Your task to perform on an android device: change your default location settings in chrome Image 0: 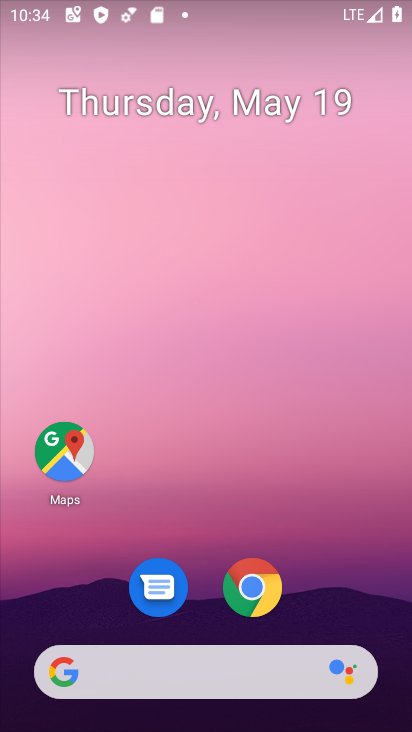
Step 0: click (255, 586)
Your task to perform on an android device: change your default location settings in chrome Image 1: 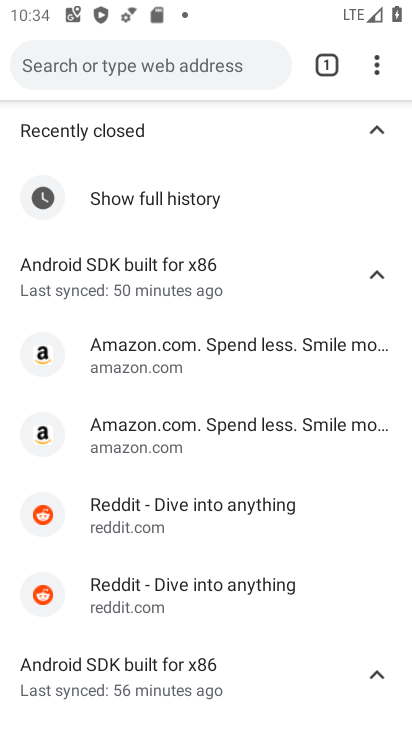
Step 1: click (372, 64)
Your task to perform on an android device: change your default location settings in chrome Image 2: 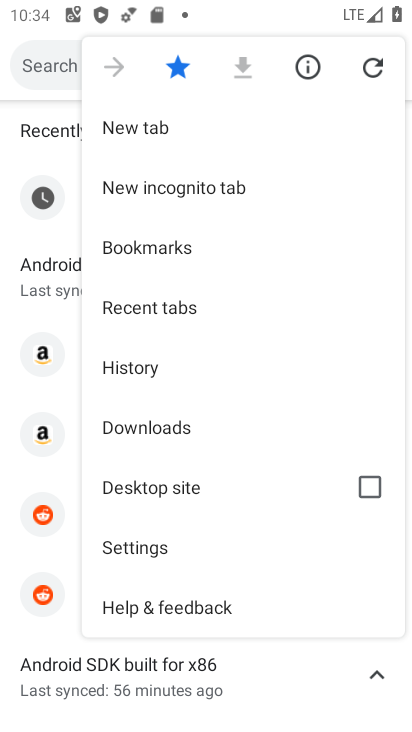
Step 2: click (124, 542)
Your task to perform on an android device: change your default location settings in chrome Image 3: 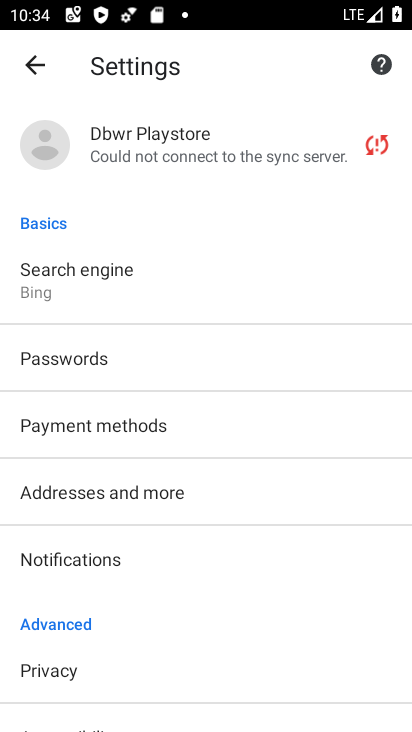
Step 3: drag from (119, 673) to (167, 246)
Your task to perform on an android device: change your default location settings in chrome Image 4: 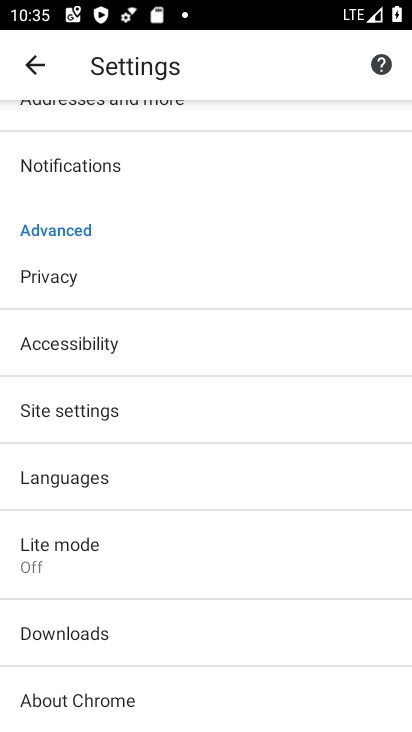
Step 4: drag from (155, 238) to (133, 556)
Your task to perform on an android device: change your default location settings in chrome Image 5: 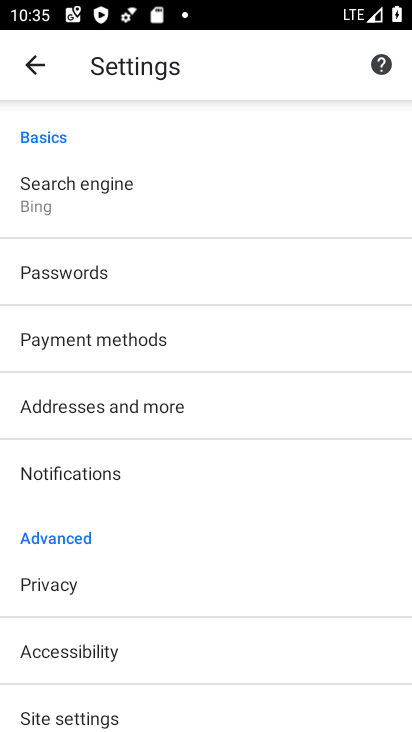
Step 5: drag from (200, 326) to (111, 673)
Your task to perform on an android device: change your default location settings in chrome Image 6: 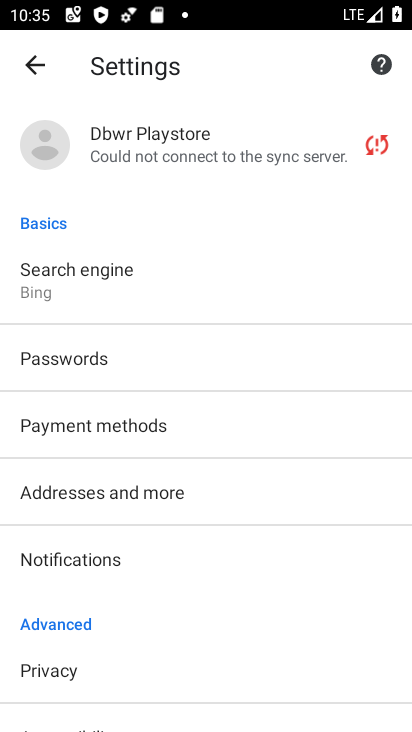
Step 6: click (117, 268)
Your task to perform on an android device: change your default location settings in chrome Image 7: 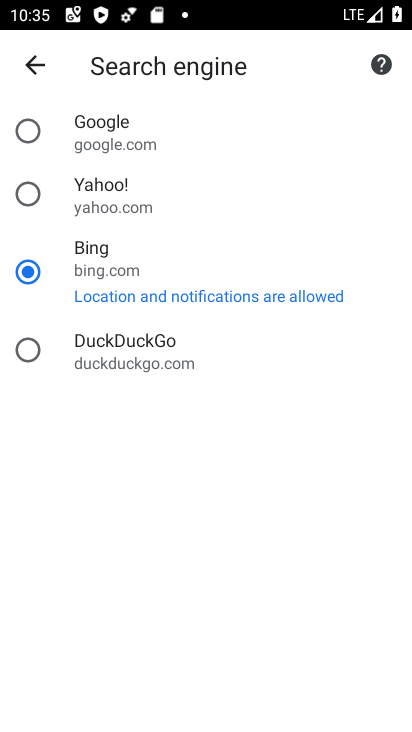
Step 7: click (24, 67)
Your task to perform on an android device: change your default location settings in chrome Image 8: 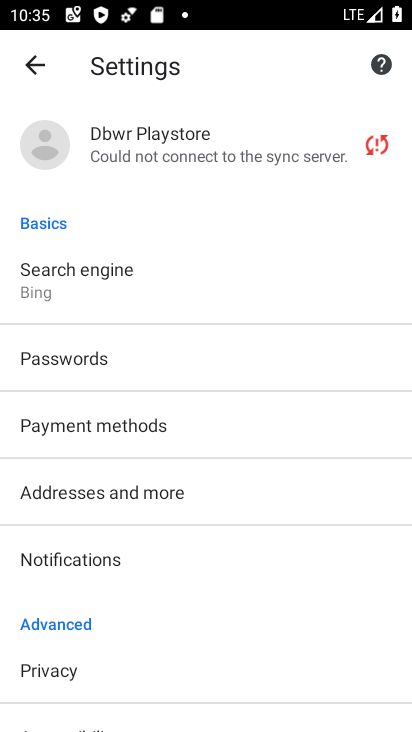
Step 8: drag from (127, 566) to (204, 167)
Your task to perform on an android device: change your default location settings in chrome Image 9: 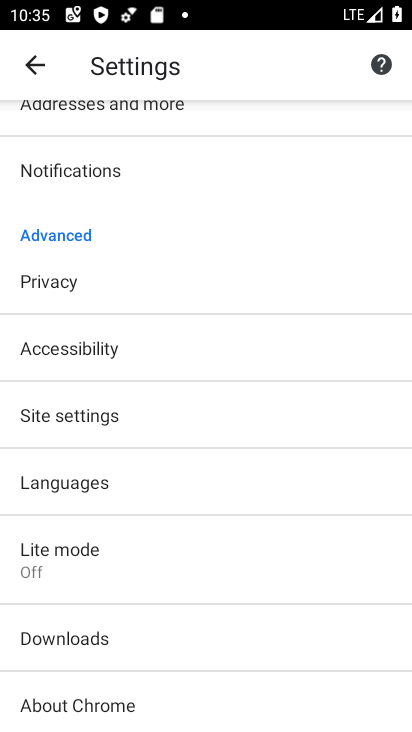
Step 9: drag from (110, 576) to (209, 146)
Your task to perform on an android device: change your default location settings in chrome Image 10: 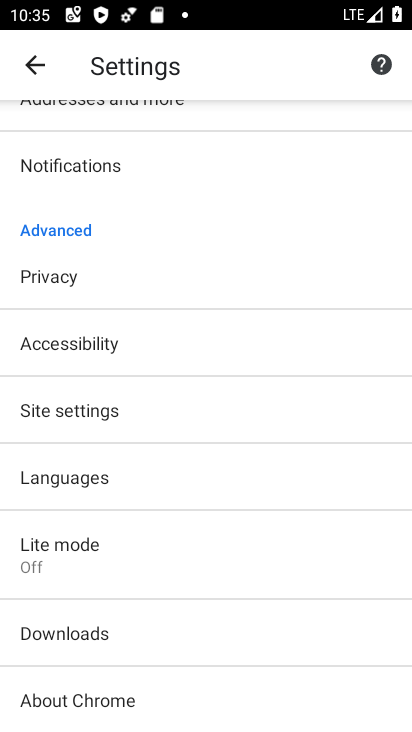
Step 10: click (154, 412)
Your task to perform on an android device: change your default location settings in chrome Image 11: 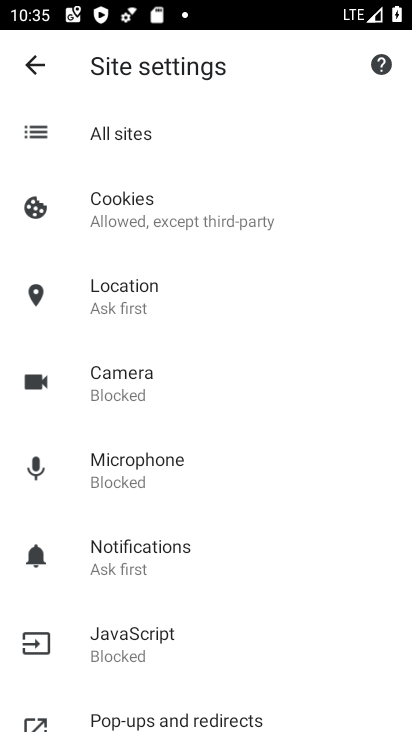
Step 11: click (120, 308)
Your task to perform on an android device: change your default location settings in chrome Image 12: 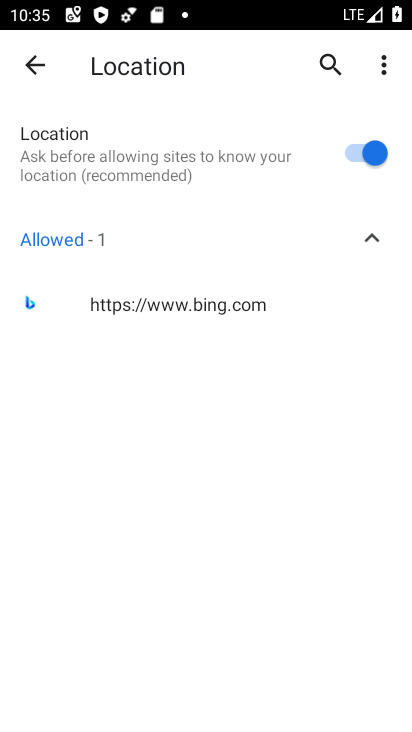
Step 12: click (350, 169)
Your task to perform on an android device: change your default location settings in chrome Image 13: 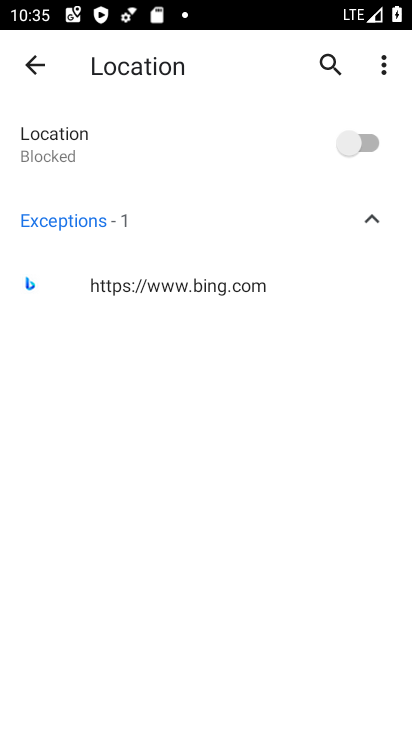
Step 13: task complete